Your task to perform on an android device: Turn off the flashlight Image 0: 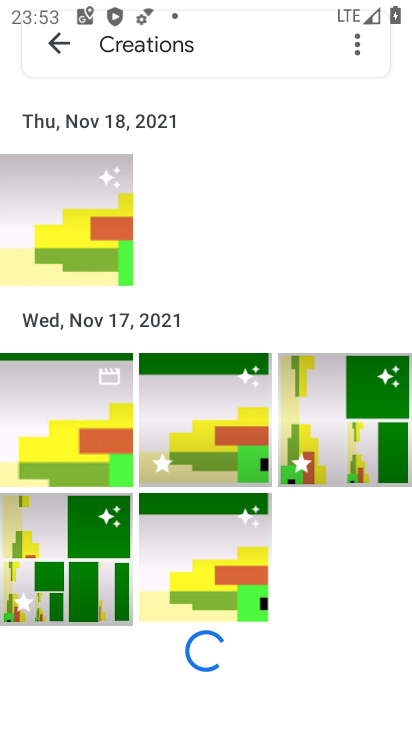
Step 0: drag from (200, 614) to (301, 18)
Your task to perform on an android device: Turn off the flashlight Image 1: 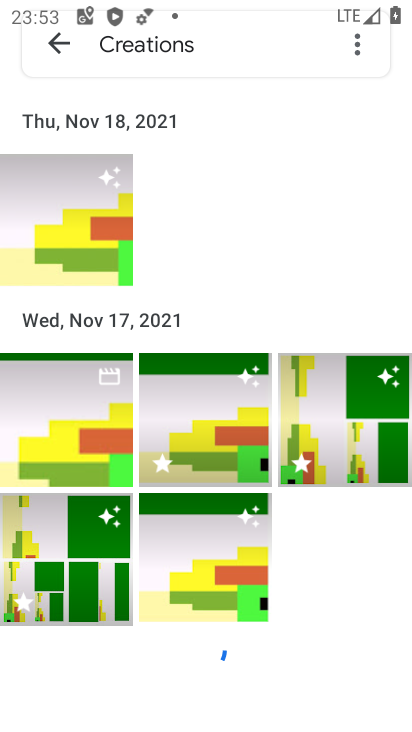
Step 1: press home button
Your task to perform on an android device: Turn off the flashlight Image 2: 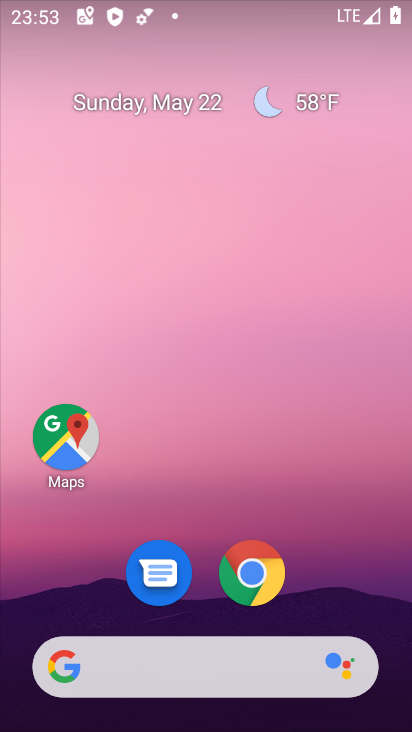
Step 2: drag from (195, 608) to (268, 5)
Your task to perform on an android device: Turn off the flashlight Image 3: 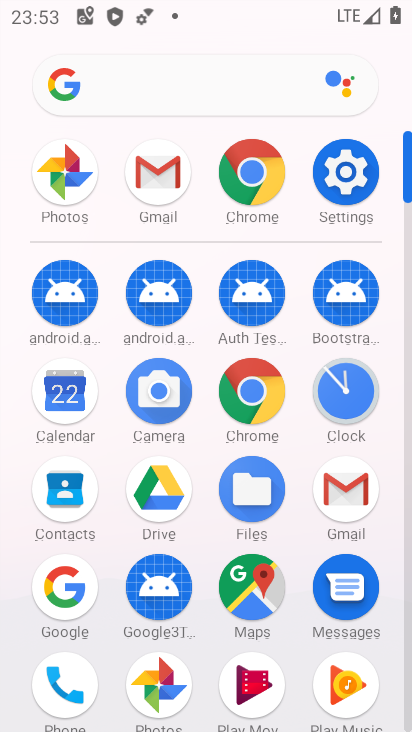
Step 3: click (351, 192)
Your task to perform on an android device: Turn off the flashlight Image 4: 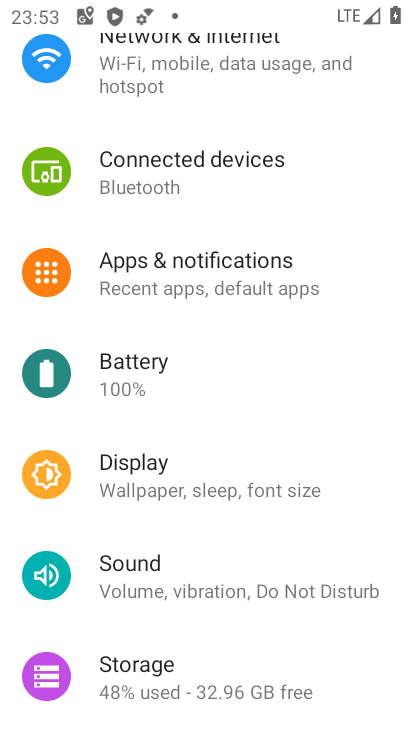
Step 4: drag from (267, 190) to (234, 653)
Your task to perform on an android device: Turn off the flashlight Image 5: 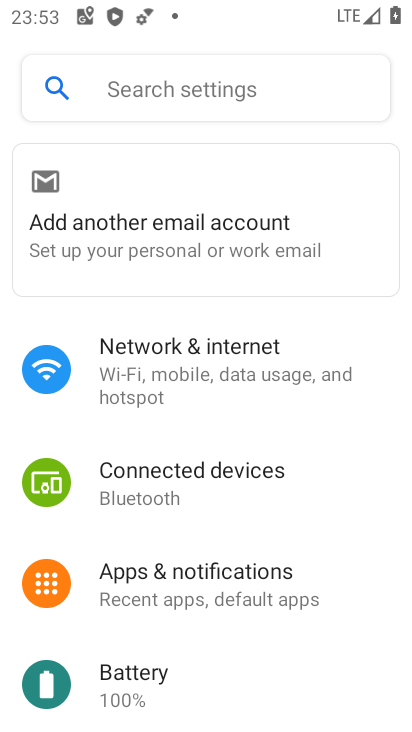
Step 5: click (217, 88)
Your task to perform on an android device: Turn off the flashlight Image 6: 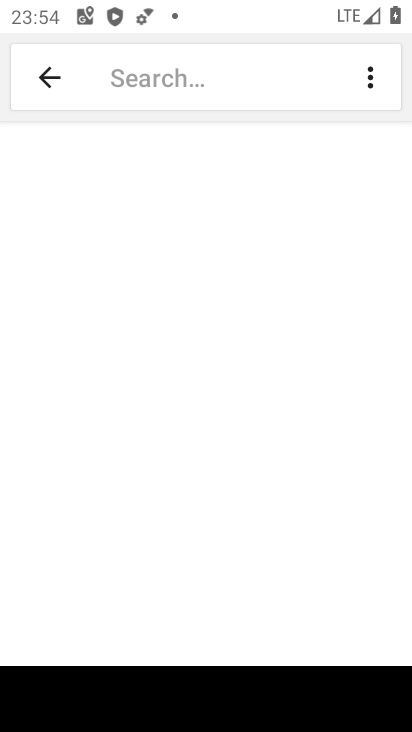
Step 6: type "flashlight"
Your task to perform on an android device: Turn off the flashlight Image 7: 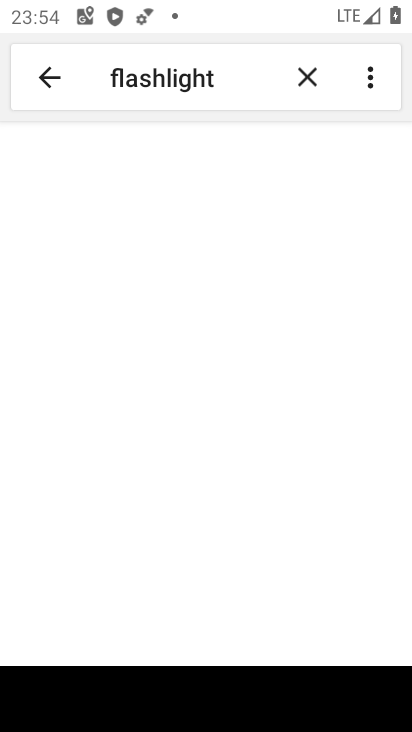
Step 7: click (156, 168)
Your task to perform on an android device: Turn off the flashlight Image 8: 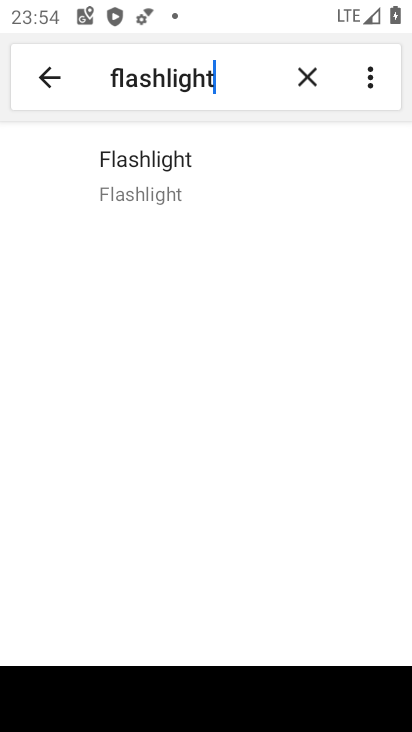
Step 8: click (188, 171)
Your task to perform on an android device: Turn off the flashlight Image 9: 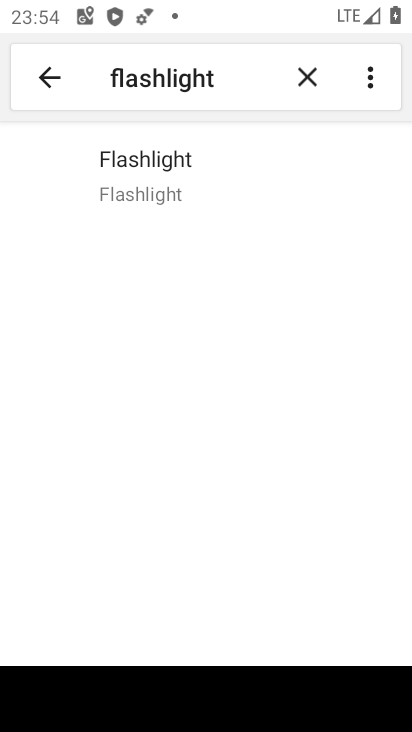
Step 9: click (214, 180)
Your task to perform on an android device: Turn off the flashlight Image 10: 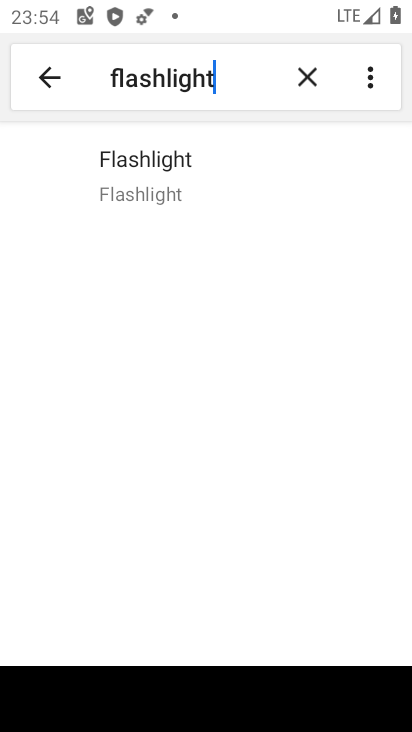
Step 10: task complete